Your task to perform on an android device: toggle notifications settings in the gmail app Image 0: 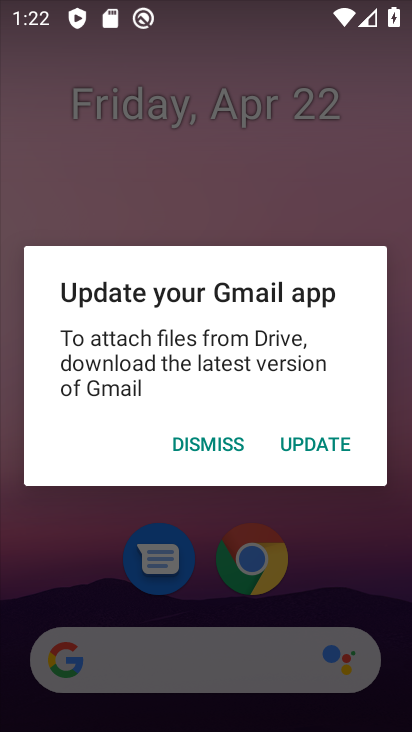
Step 0: press home button
Your task to perform on an android device: toggle notifications settings in the gmail app Image 1: 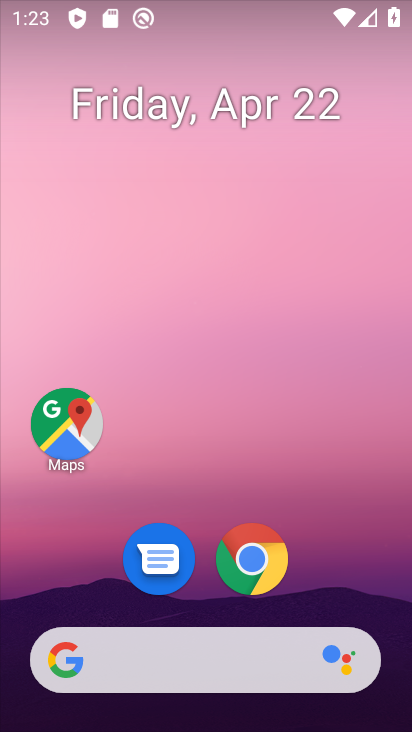
Step 1: drag from (371, 568) to (256, 23)
Your task to perform on an android device: toggle notifications settings in the gmail app Image 2: 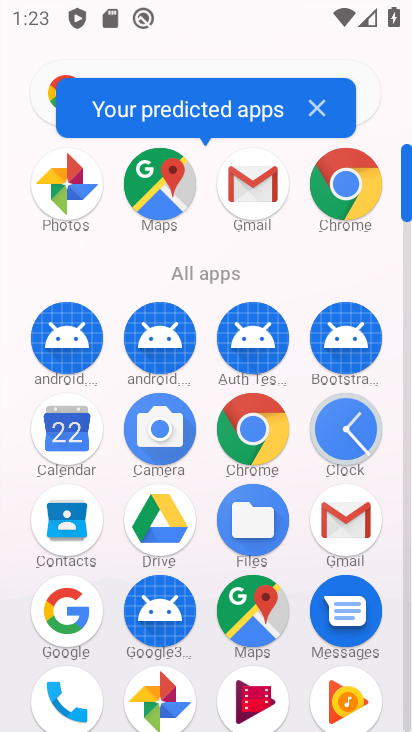
Step 2: click (249, 169)
Your task to perform on an android device: toggle notifications settings in the gmail app Image 3: 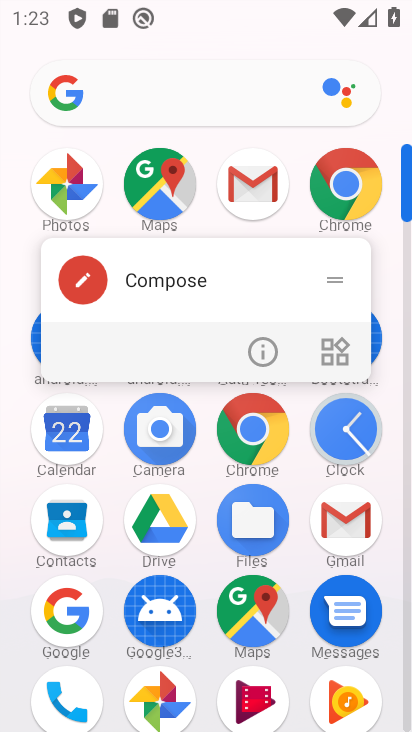
Step 3: click (256, 348)
Your task to perform on an android device: toggle notifications settings in the gmail app Image 4: 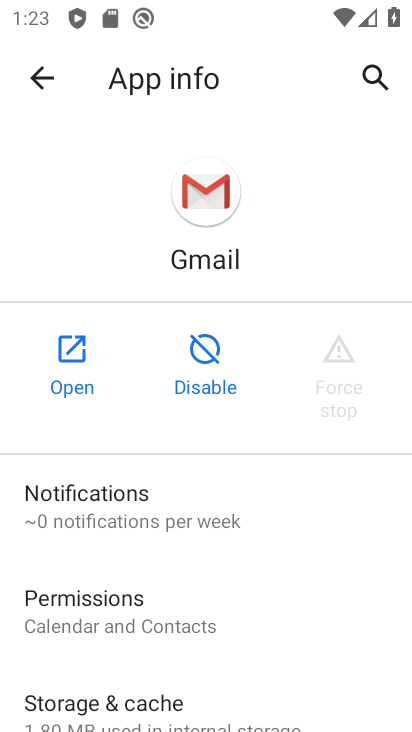
Step 4: click (158, 523)
Your task to perform on an android device: toggle notifications settings in the gmail app Image 5: 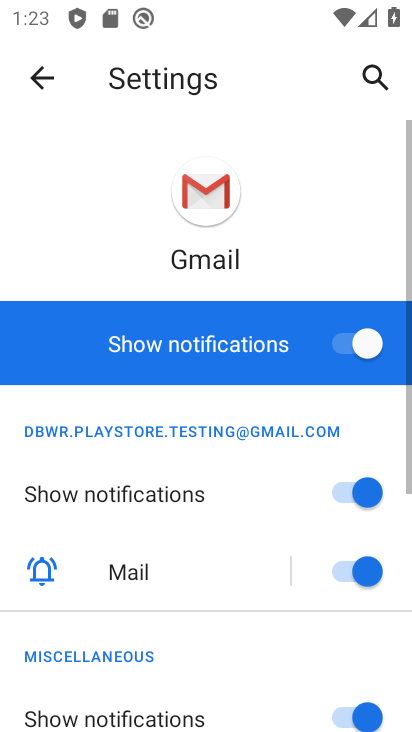
Step 5: click (360, 346)
Your task to perform on an android device: toggle notifications settings in the gmail app Image 6: 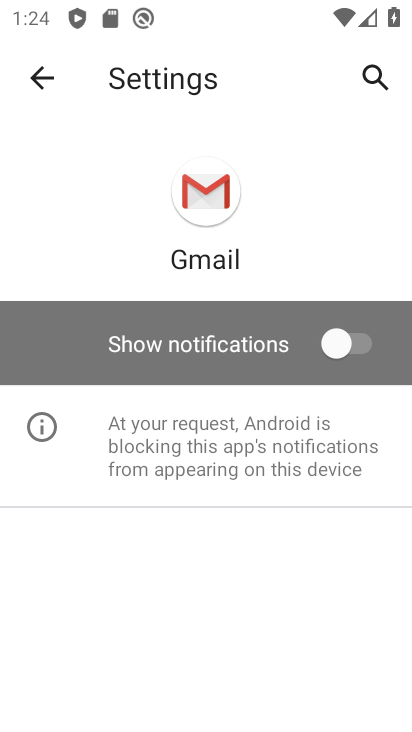
Step 6: task complete